Your task to perform on an android device: delete location history Image 0: 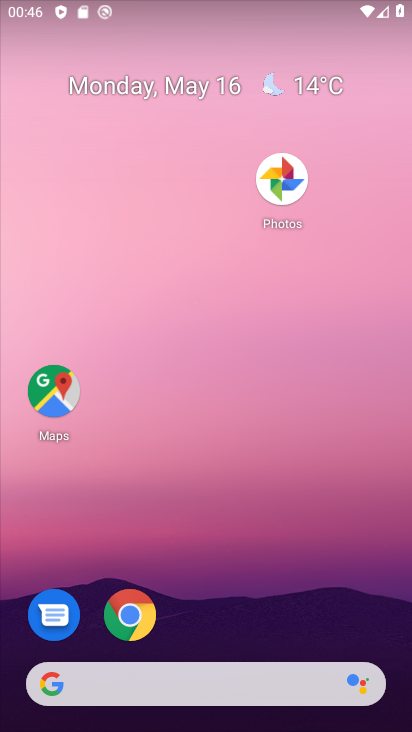
Step 0: drag from (211, 547) to (294, 105)
Your task to perform on an android device: delete location history Image 1: 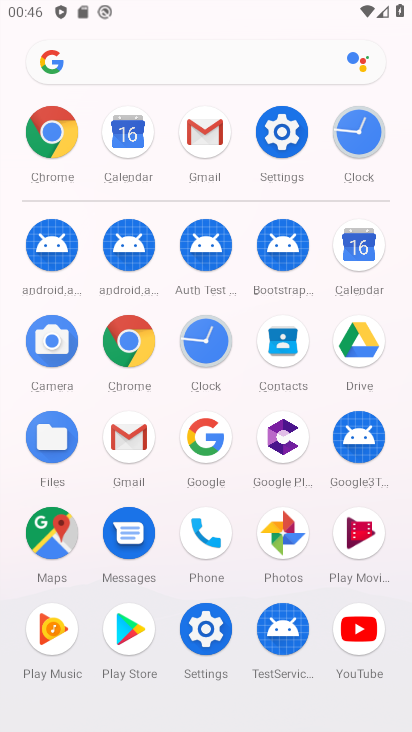
Step 1: click (203, 650)
Your task to perform on an android device: delete location history Image 2: 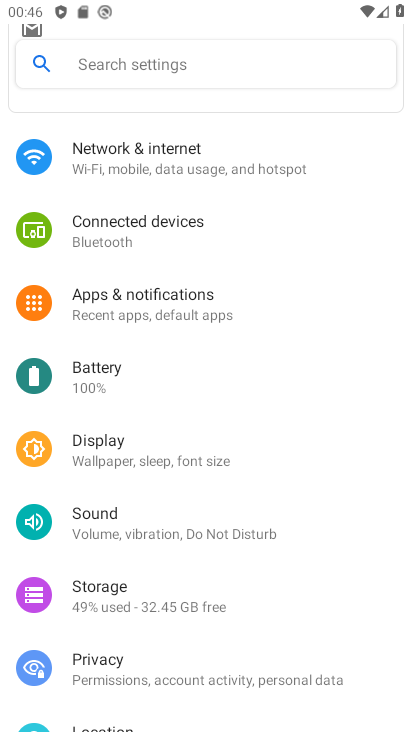
Step 2: drag from (318, 621) to (339, 277)
Your task to perform on an android device: delete location history Image 3: 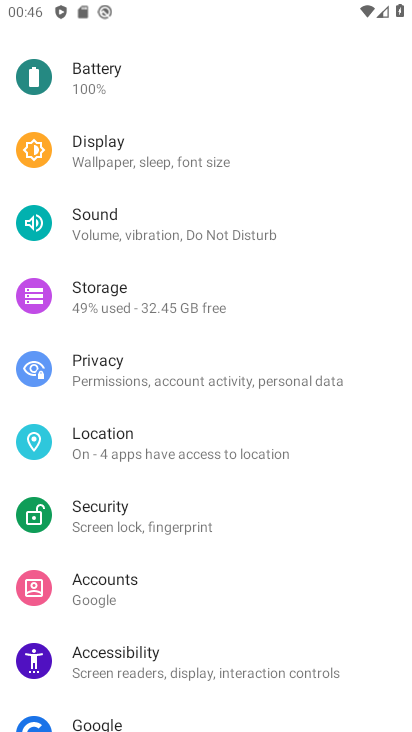
Step 3: click (136, 456)
Your task to perform on an android device: delete location history Image 4: 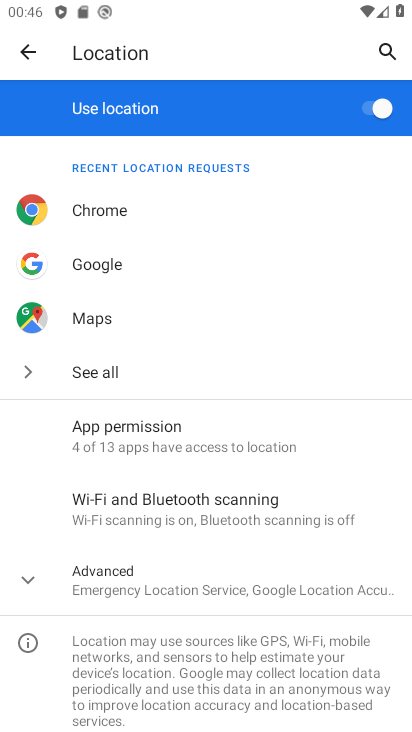
Step 4: click (181, 579)
Your task to perform on an android device: delete location history Image 5: 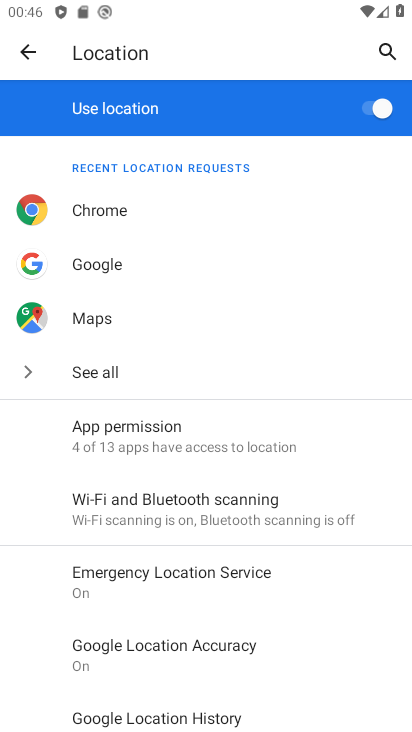
Step 5: drag from (264, 669) to (293, 467)
Your task to perform on an android device: delete location history Image 6: 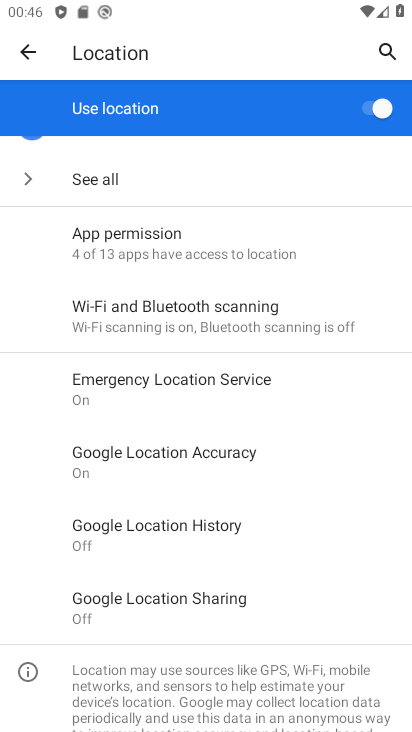
Step 6: click (184, 525)
Your task to perform on an android device: delete location history Image 7: 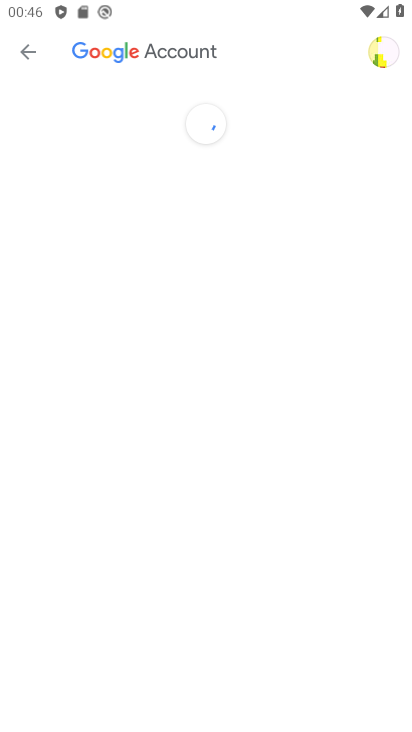
Step 7: drag from (195, 662) to (270, 328)
Your task to perform on an android device: delete location history Image 8: 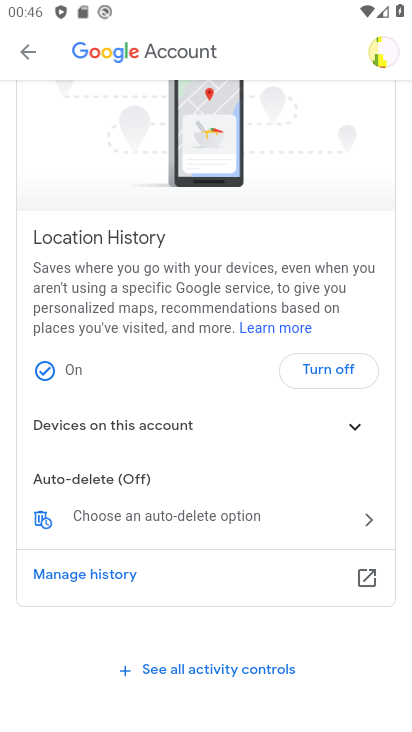
Step 8: click (109, 586)
Your task to perform on an android device: delete location history Image 9: 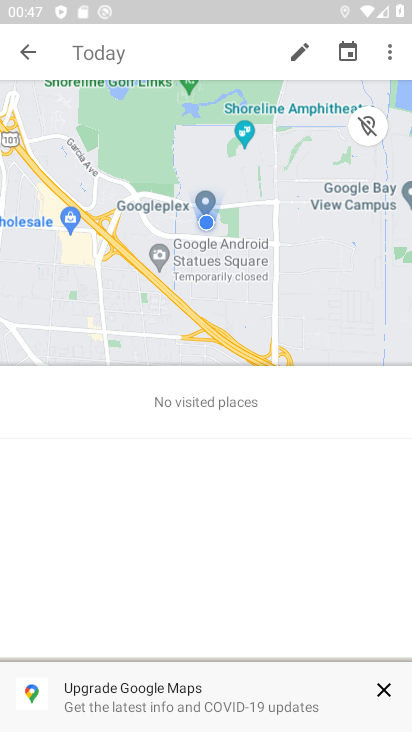
Step 9: click (384, 695)
Your task to perform on an android device: delete location history Image 10: 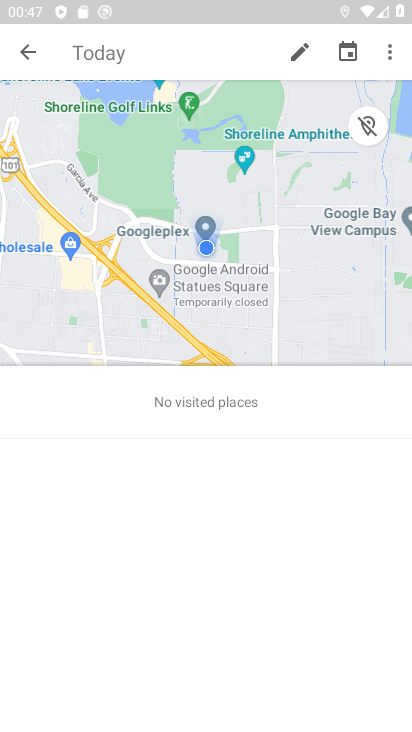
Step 10: drag from (382, 47) to (310, 339)
Your task to perform on an android device: delete location history Image 11: 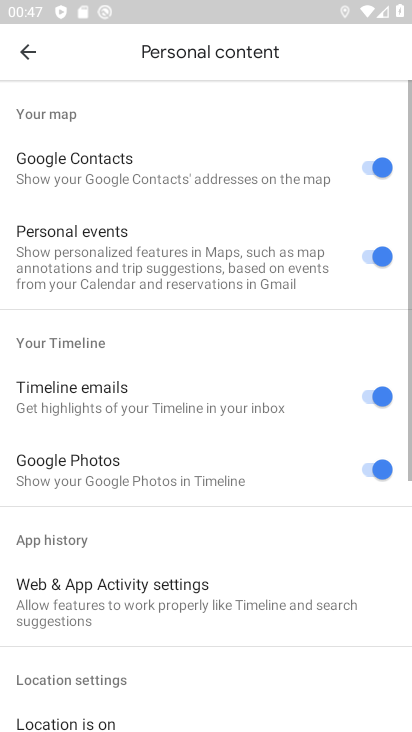
Step 11: drag from (221, 650) to (230, 342)
Your task to perform on an android device: delete location history Image 12: 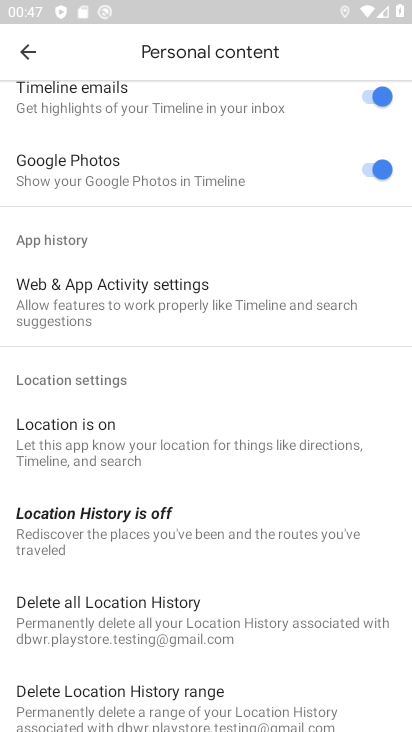
Step 12: click (199, 601)
Your task to perform on an android device: delete location history Image 13: 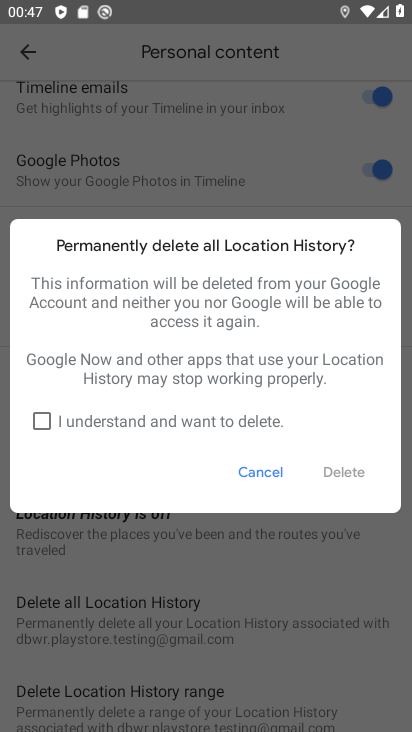
Step 13: click (48, 414)
Your task to perform on an android device: delete location history Image 14: 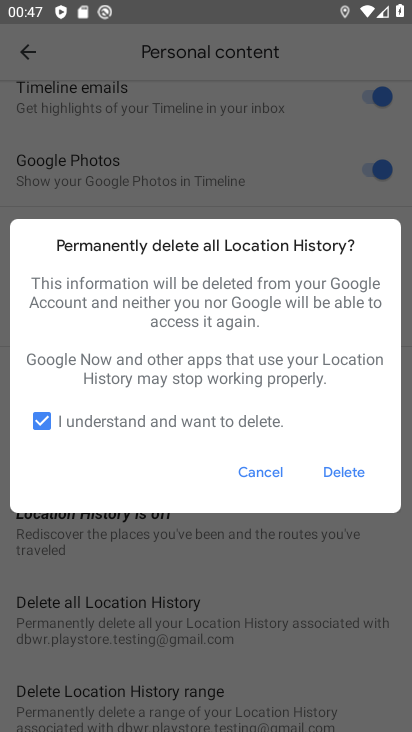
Step 14: click (346, 470)
Your task to perform on an android device: delete location history Image 15: 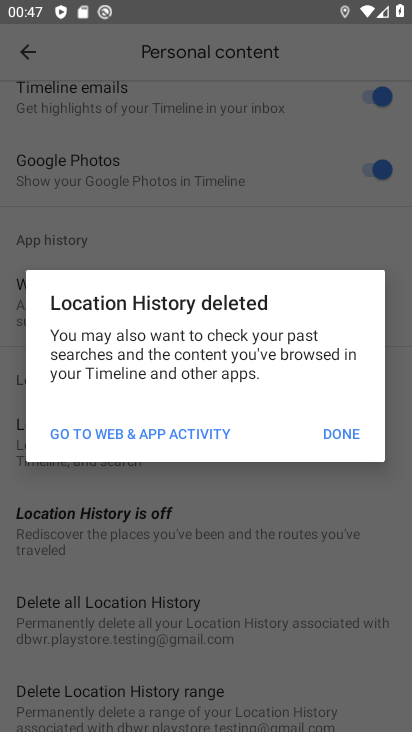
Step 15: click (336, 434)
Your task to perform on an android device: delete location history Image 16: 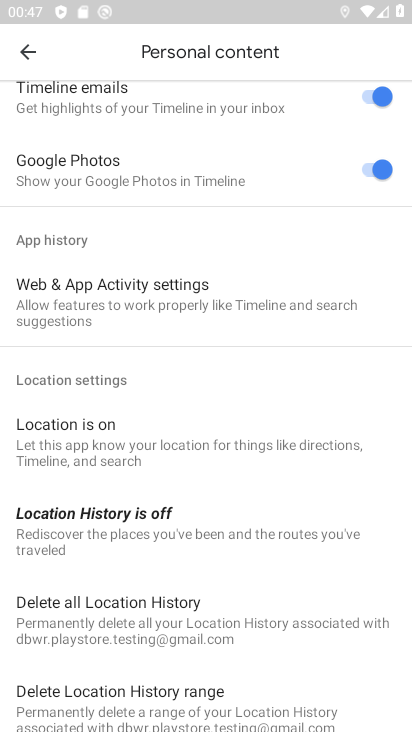
Step 16: task complete